Your task to perform on an android device: Open Google Chrome Image 0: 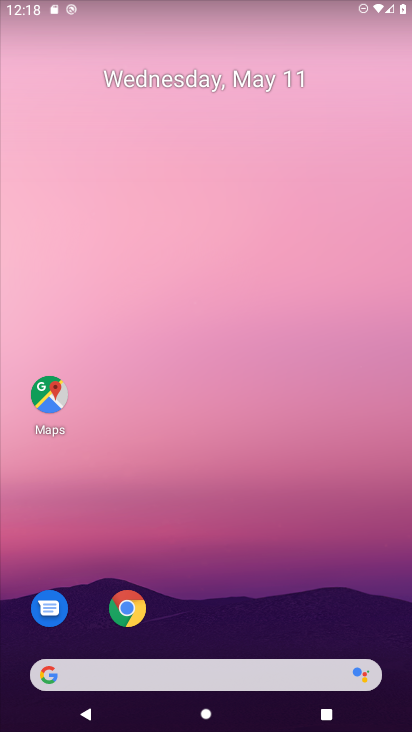
Step 0: click (133, 593)
Your task to perform on an android device: Open Google Chrome Image 1: 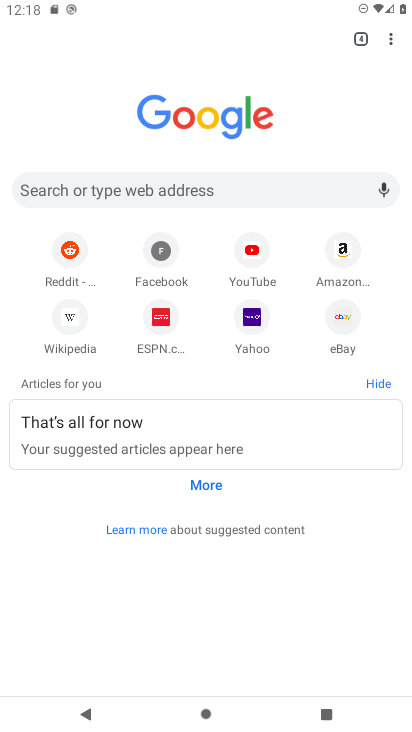
Step 1: task complete